Your task to perform on an android device: View the shopping cart on amazon. Add usb-c to usb-a to the cart on amazon, then select checkout. Image 0: 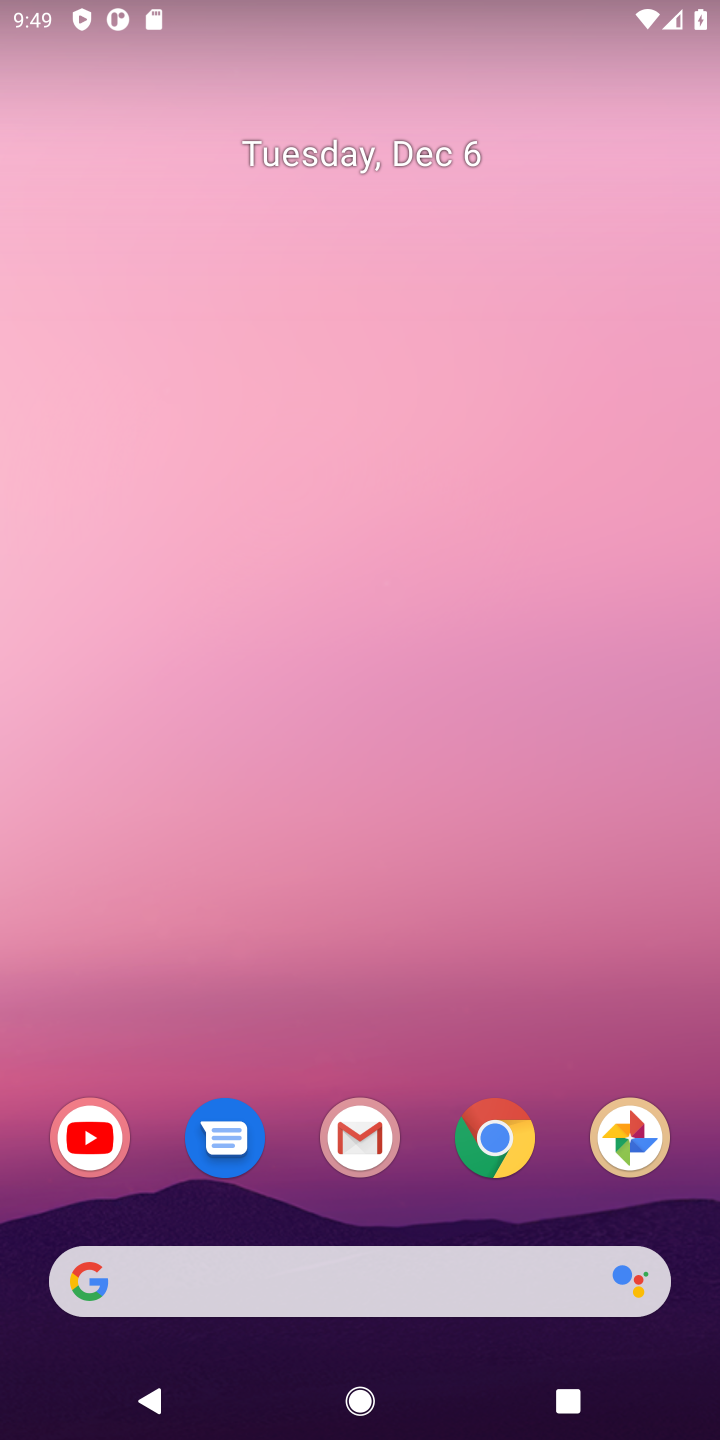
Step 0: click (506, 1134)
Your task to perform on an android device: View the shopping cart on amazon. Add usb-c to usb-a to the cart on amazon, then select checkout. Image 1: 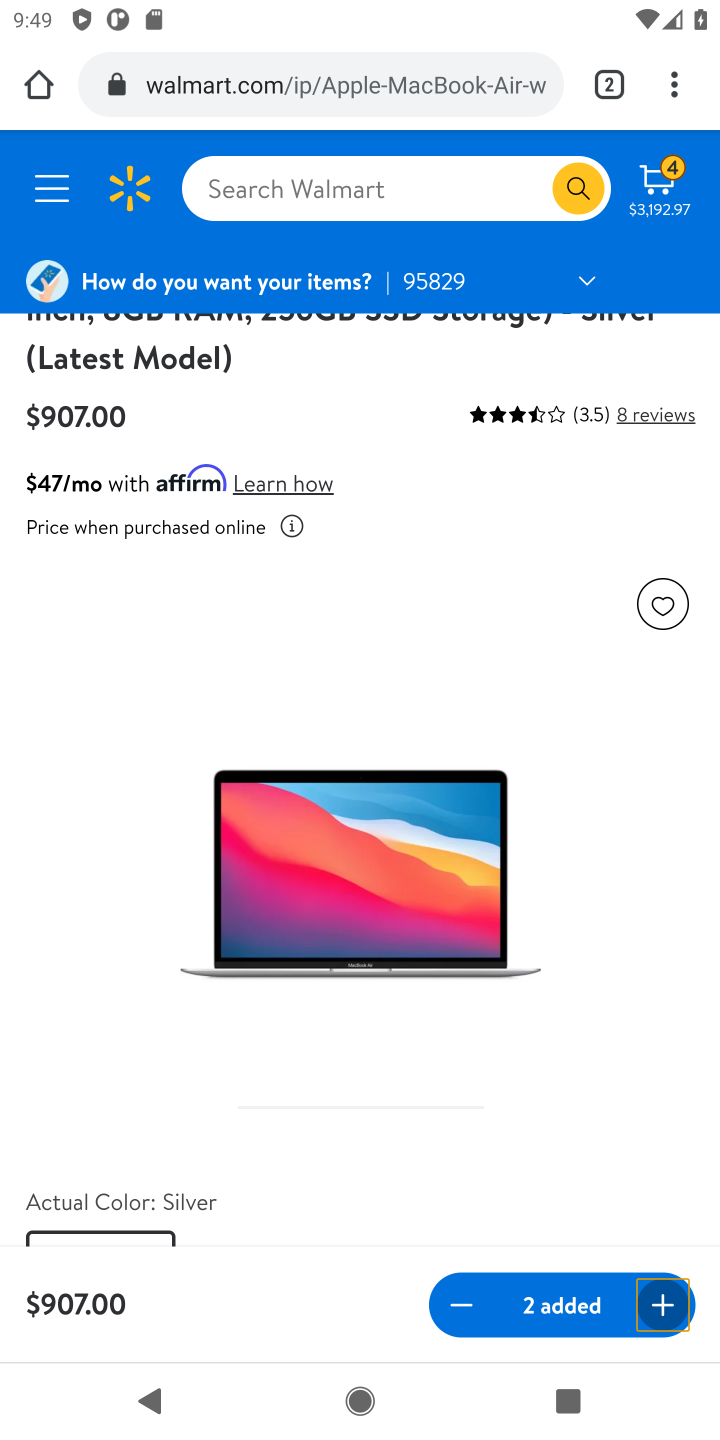
Step 1: click (293, 95)
Your task to perform on an android device: View the shopping cart on amazon. Add usb-c to usb-a to the cart on amazon, then select checkout. Image 2: 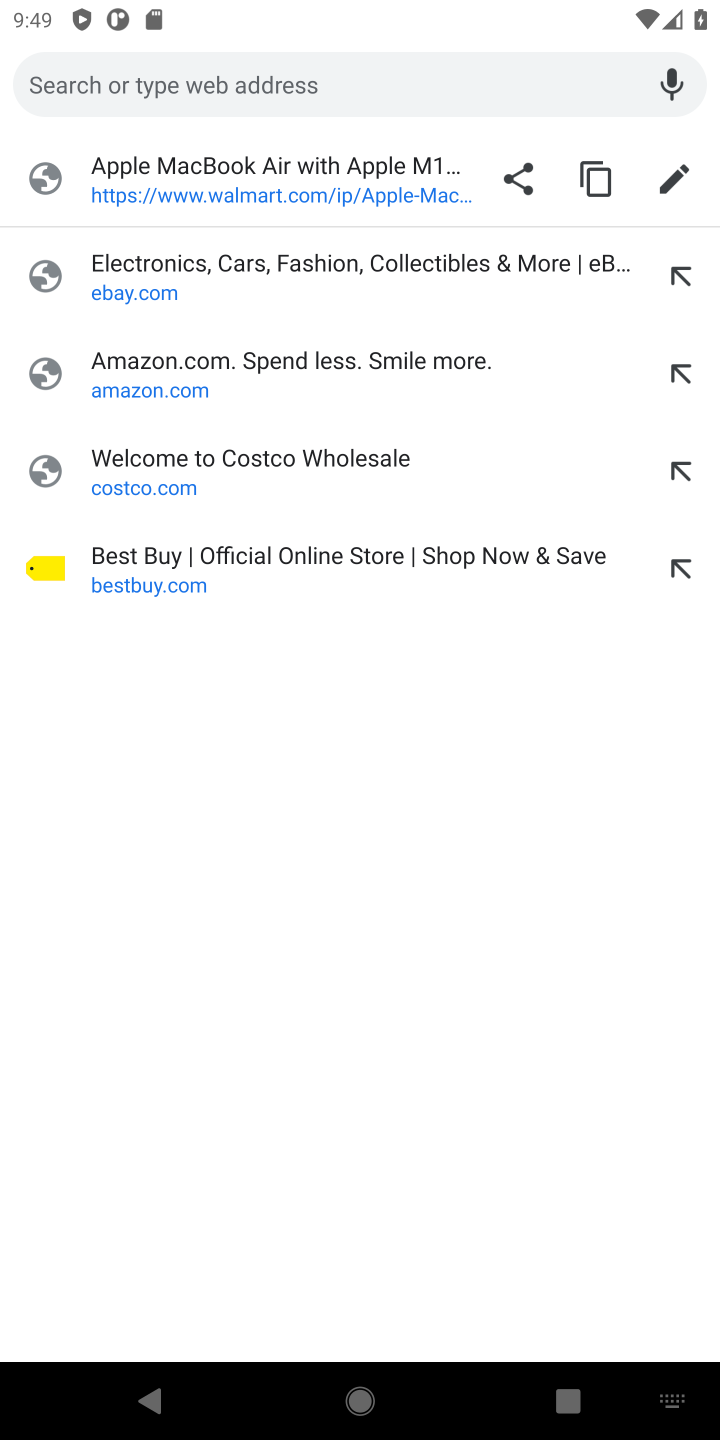
Step 2: click (129, 377)
Your task to perform on an android device: View the shopping cart on amazon. Add usb-c to usb-a to the cart on amazon, then select checkout. Image 3: 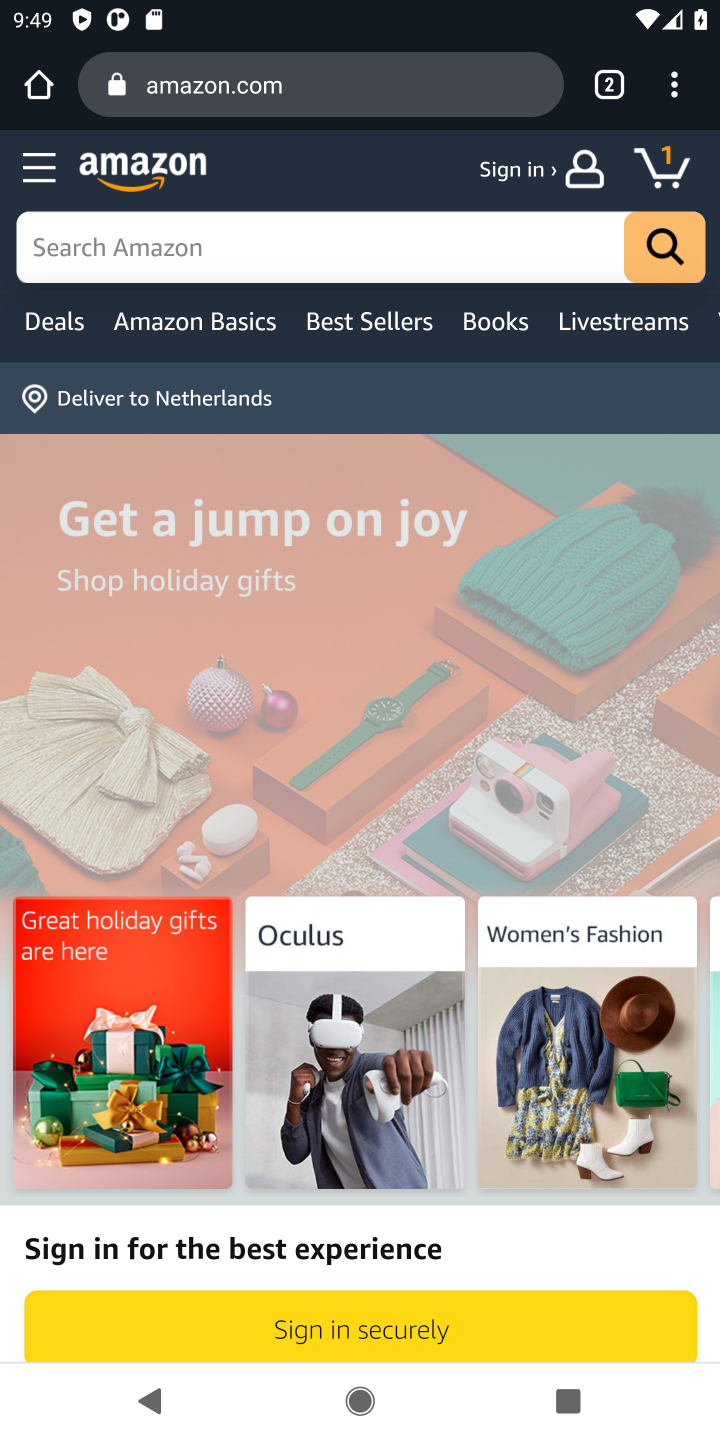
Step 3: click (668, 168)
Your task to perform on an android device: View the shopping cart on amazon. Add usb-c to usb-a to the cart on amazon, then select checkout. Image 4: 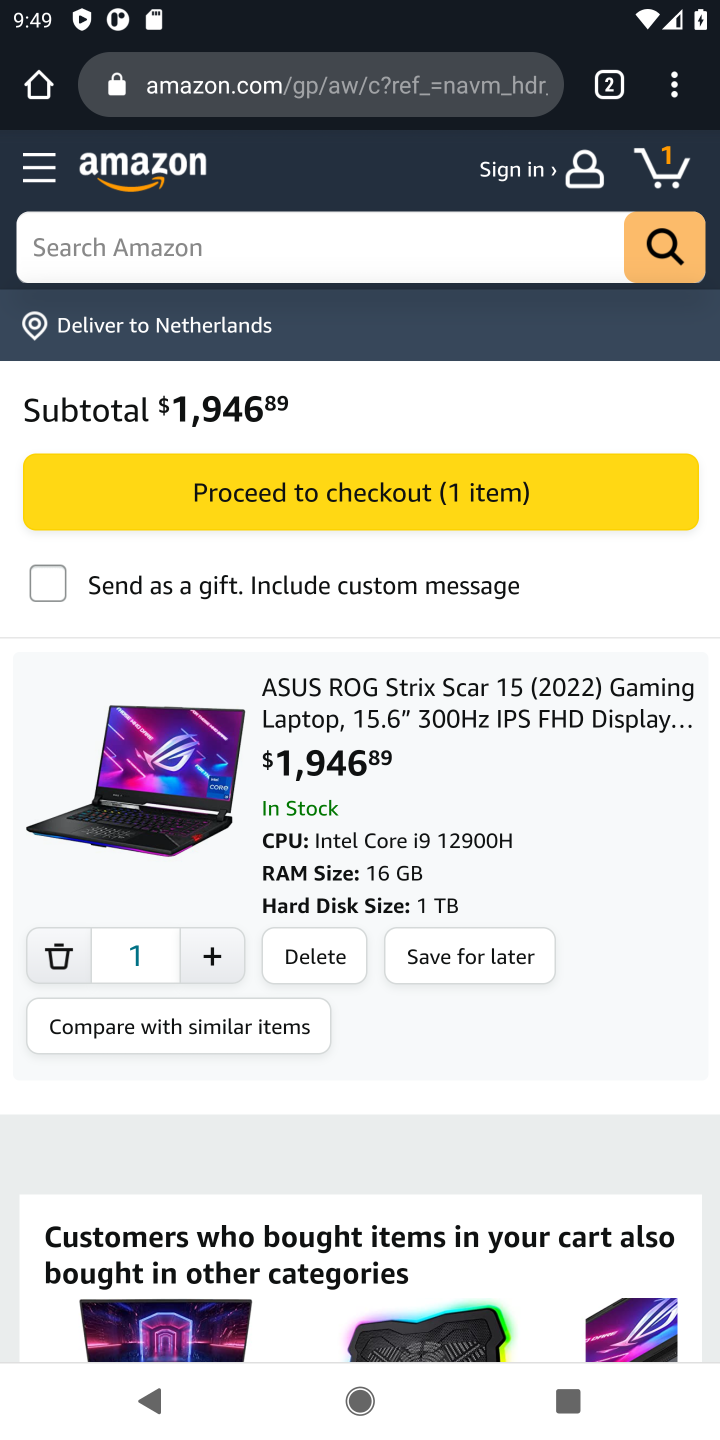
Step 4: click (82, 237)
Your task to perform on an android device: View the shopping cart on amazon. Add usb-c to usb-a to the cart on amazon, then select checkout. Image 5: 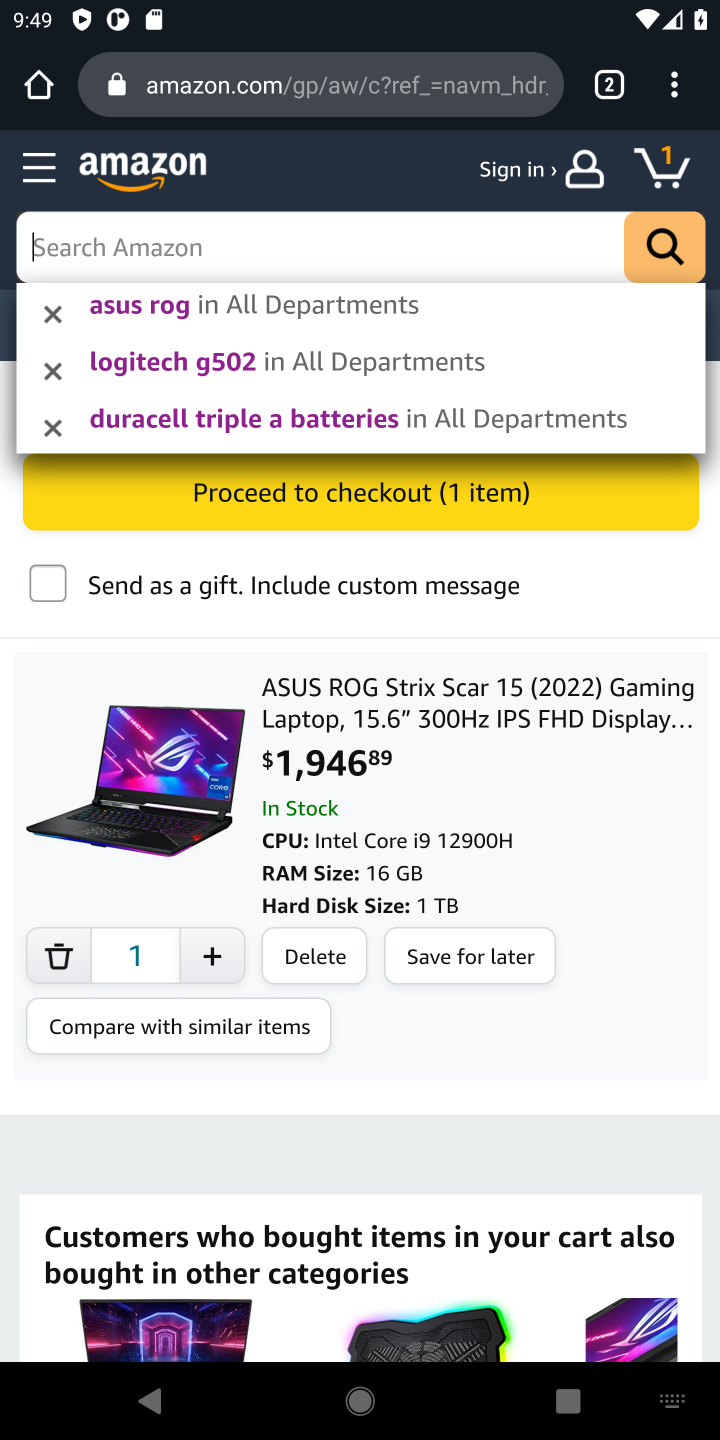
Step 5: type " usb-c to usb-a"
Your task to perform on an android device: View the shopping cart on amazon. Add usb-c to usb-a to the cart on amazon, then select checkout. Image 6: 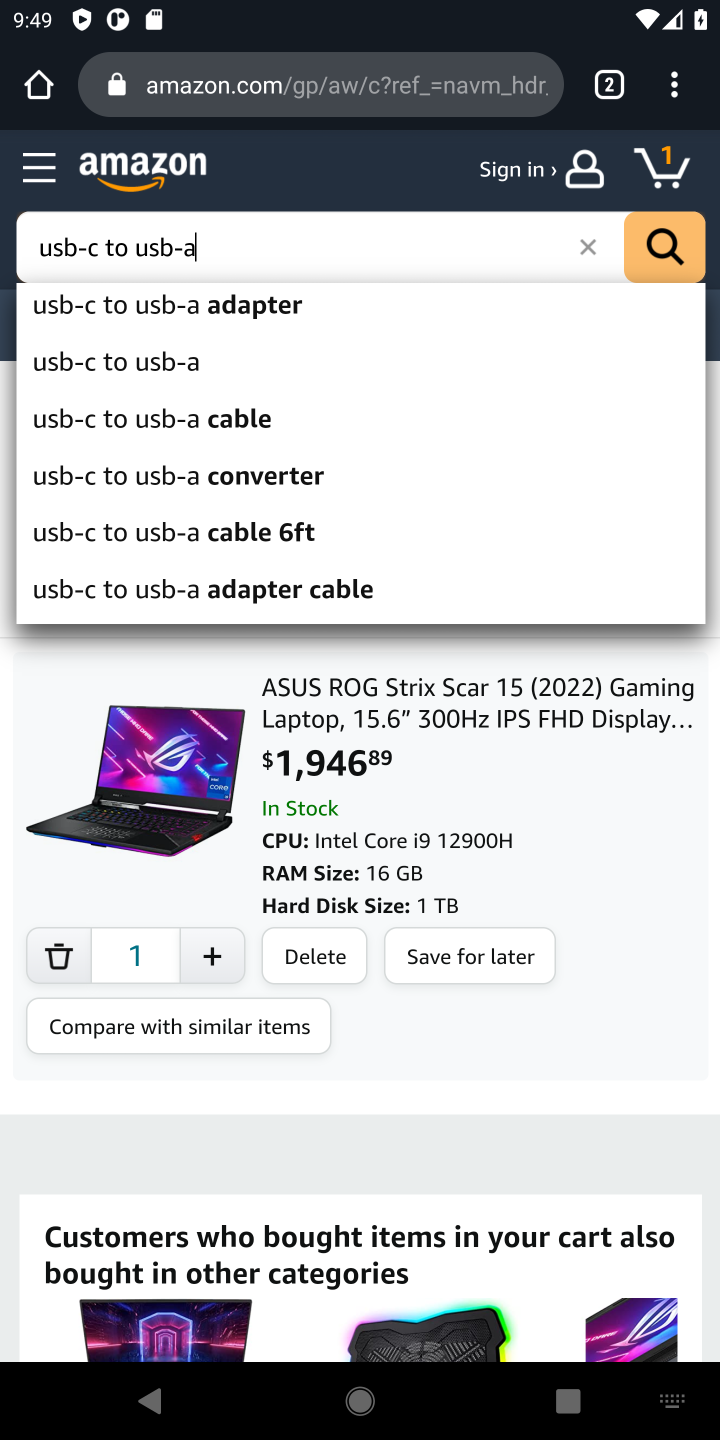
Step 6: click (145, 368)
Your task to perform on an android device: View the shopping cart on amazon. Add usb-c to usb-a to the cart on amazon, then select checkout. Image 7: 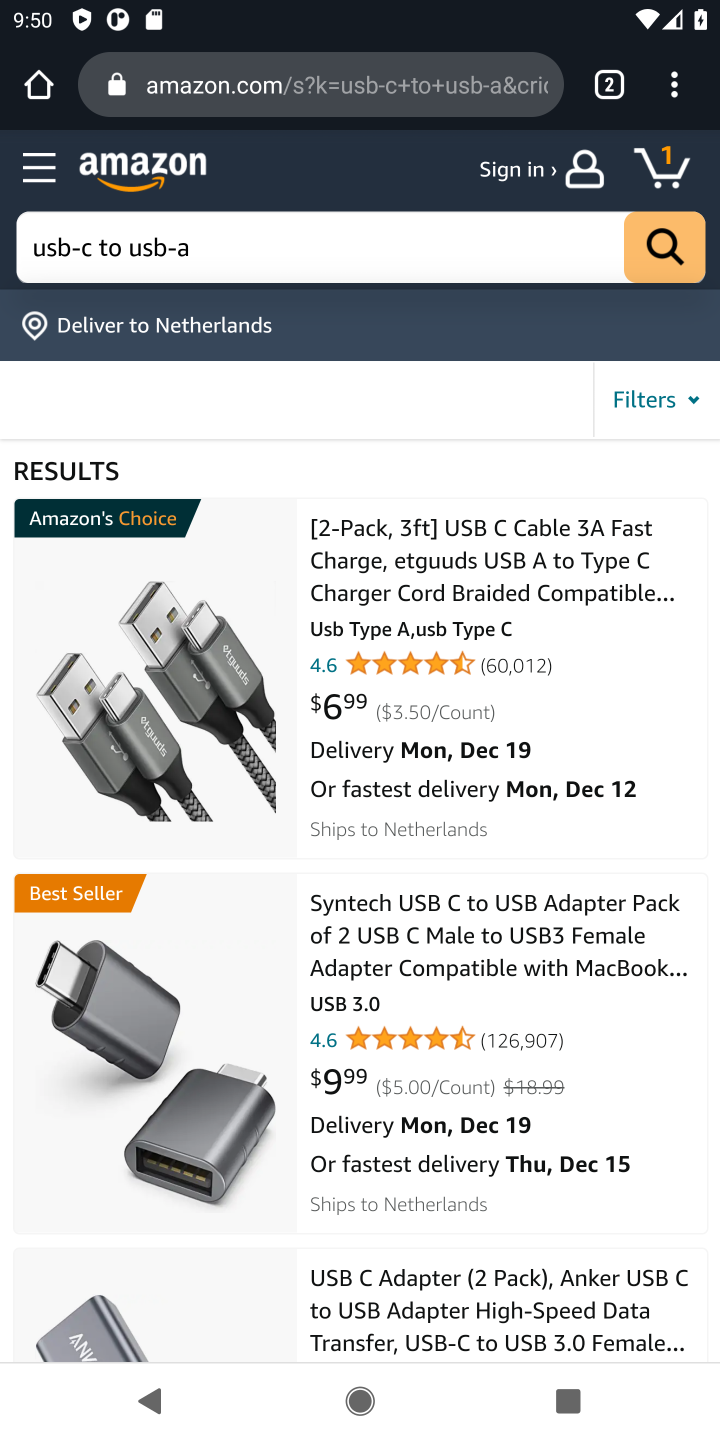
Step 7: drag from (455, 1096) to (423, 639)
Your task to perform on an android device: View the shopping cart on amazon. Add usb-c to usb-a to the cart on amazon, then select checkout. Image 8: 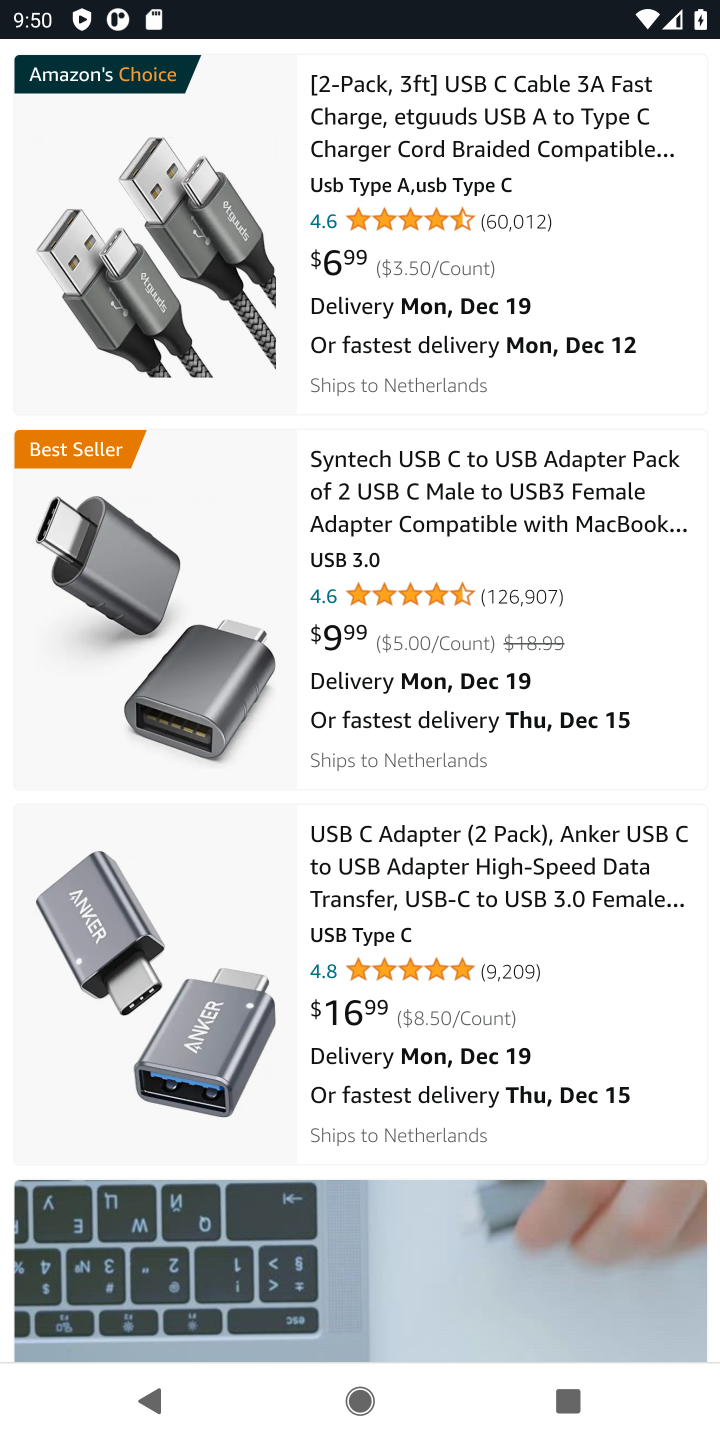
Step 8: drag from (373, 877) to (354, 422)
Your task to perform on an android device: View the shopping cart on amazon. Add usb-c to usb-a to the cart on amazon, then select checkout. Image 9: 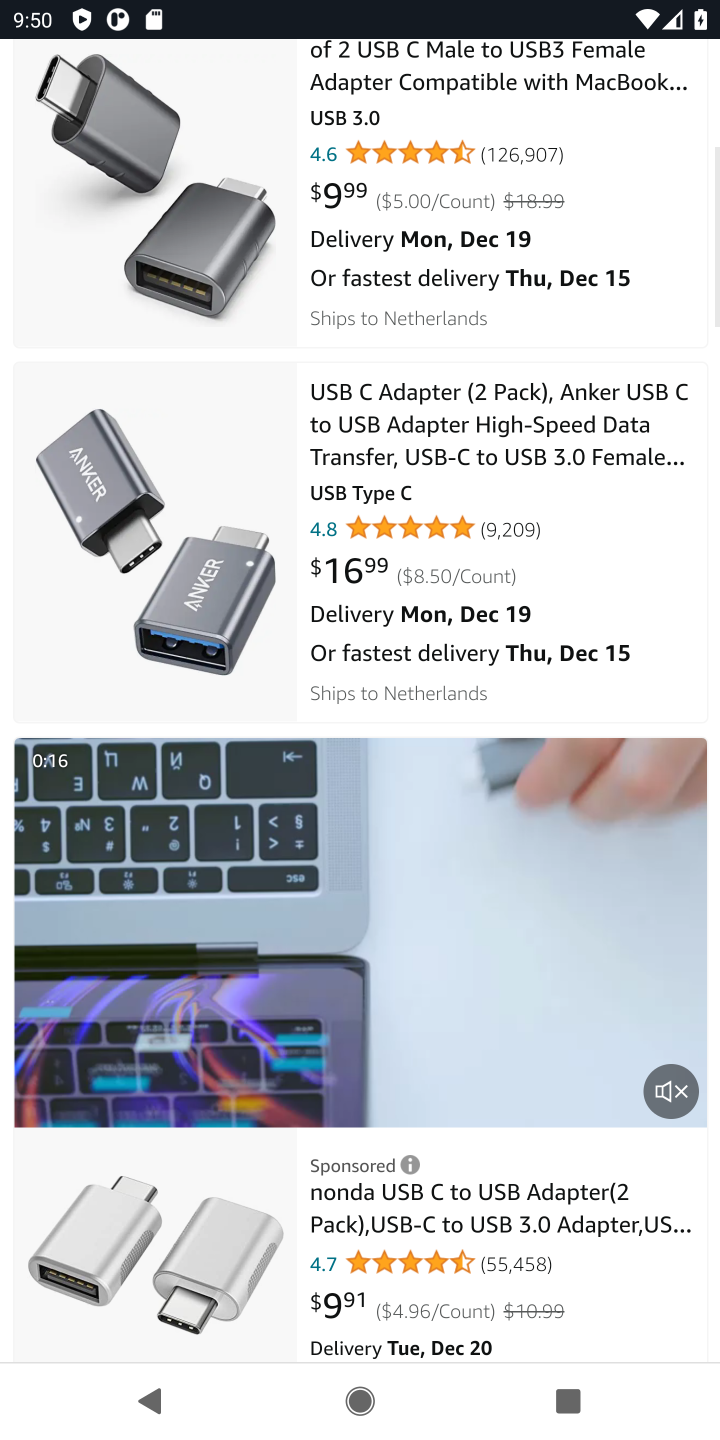
Step 9: drag from (323, 1030) to (339, 491)
Your task to perform on an android device: View the shopping cart on amazon. Add usb-c to usb-a to the cart on amazon, then select checkout. Image 10: 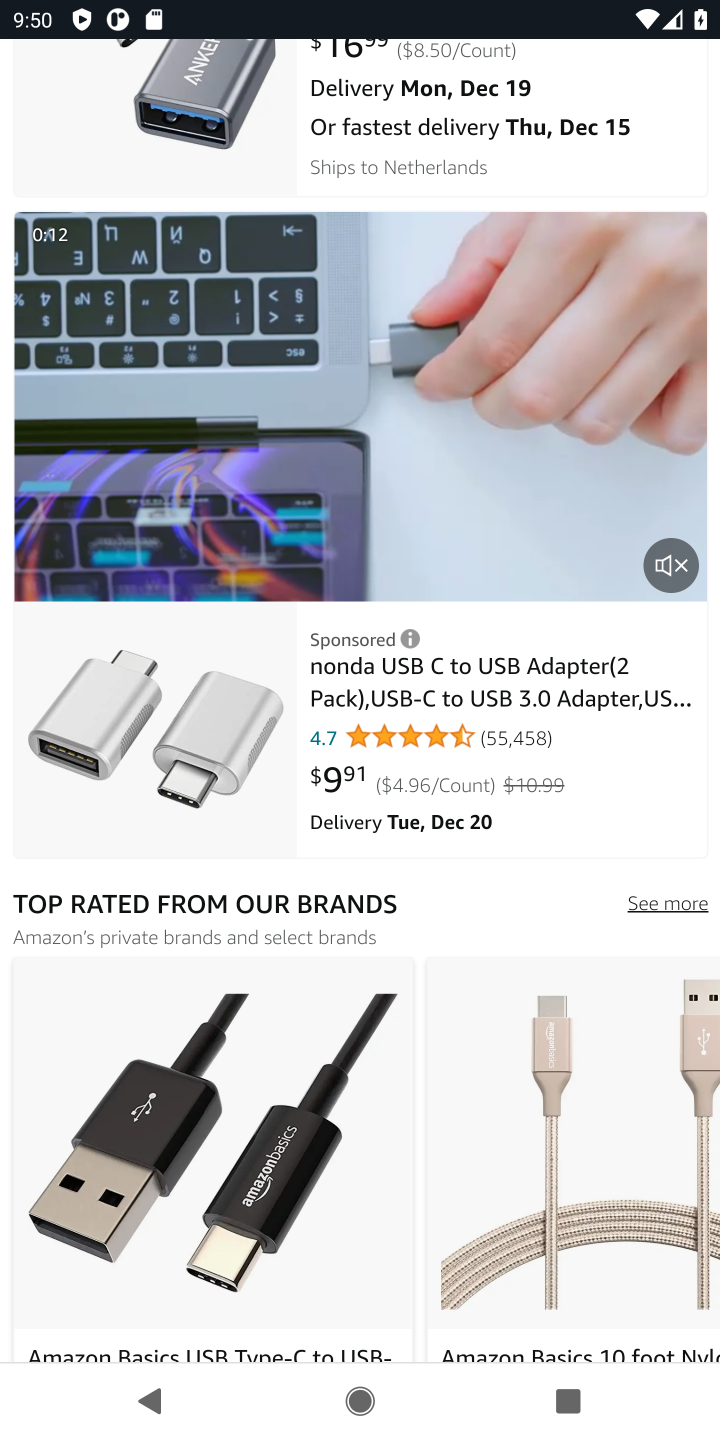
Step 10: drag from (397, 895) to (395, 402)
Your task to perform on an android device: View the shopping cart on amazon. Add usb-c to usb-a to the cart on amazon, then select checkout. Image 11: 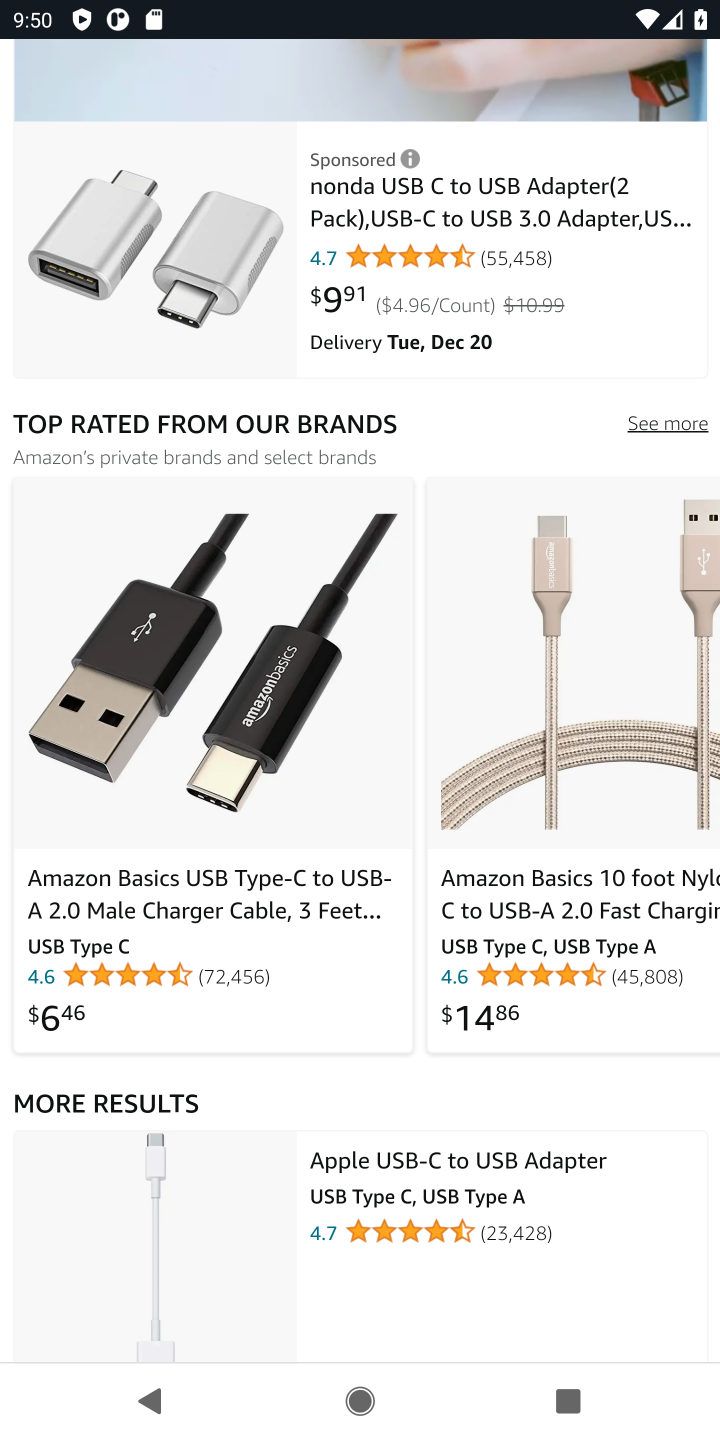
Step 11: drag from (336, 1065) to (332, 410)
Your task to perform on an android device: View the shopping cart on amazon. Add usb-c to usb-a to the cart on amazon, then select checkout. Image 12: 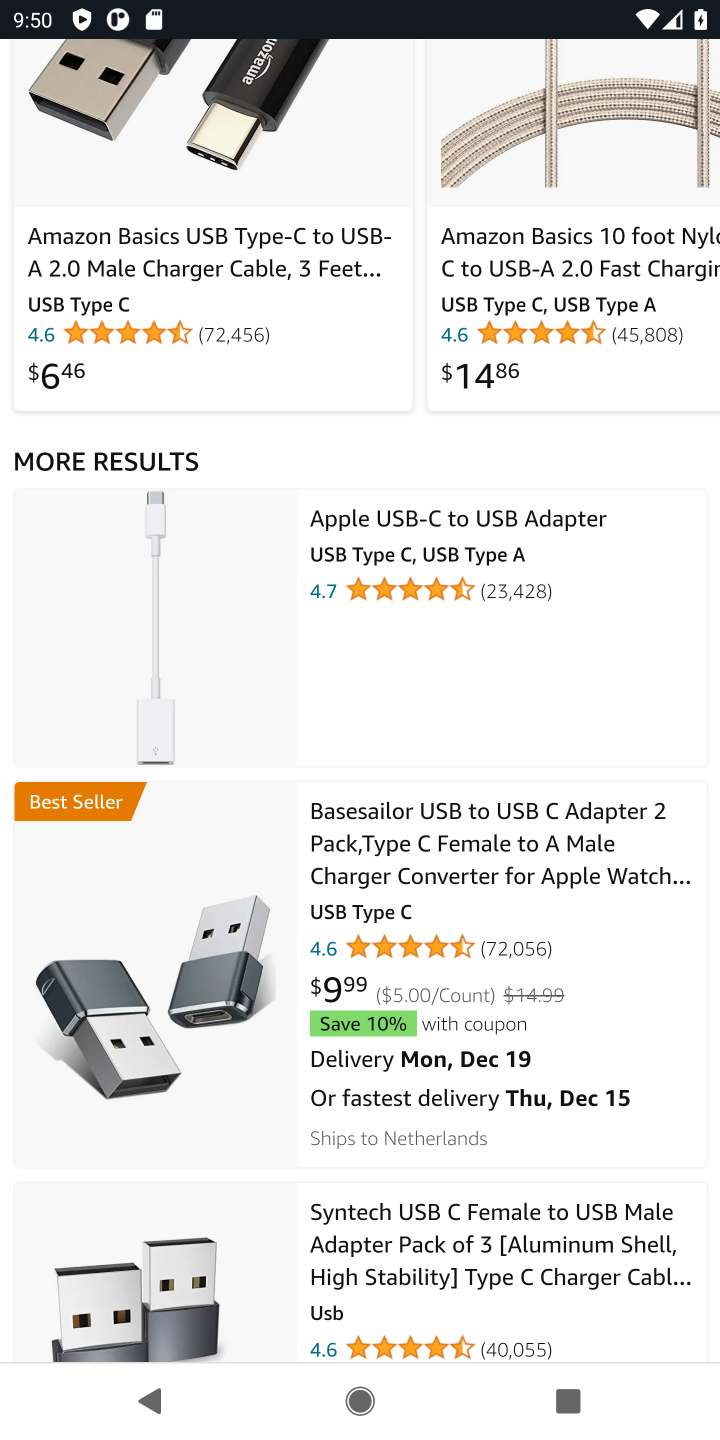
Step 12: drag from (327, 511) to (316, 772)
Your task to perform on an android device: View the shopping cart on amazon. Add usb-c to usb-a to the cart on amazon, then select checkout. Image 13: 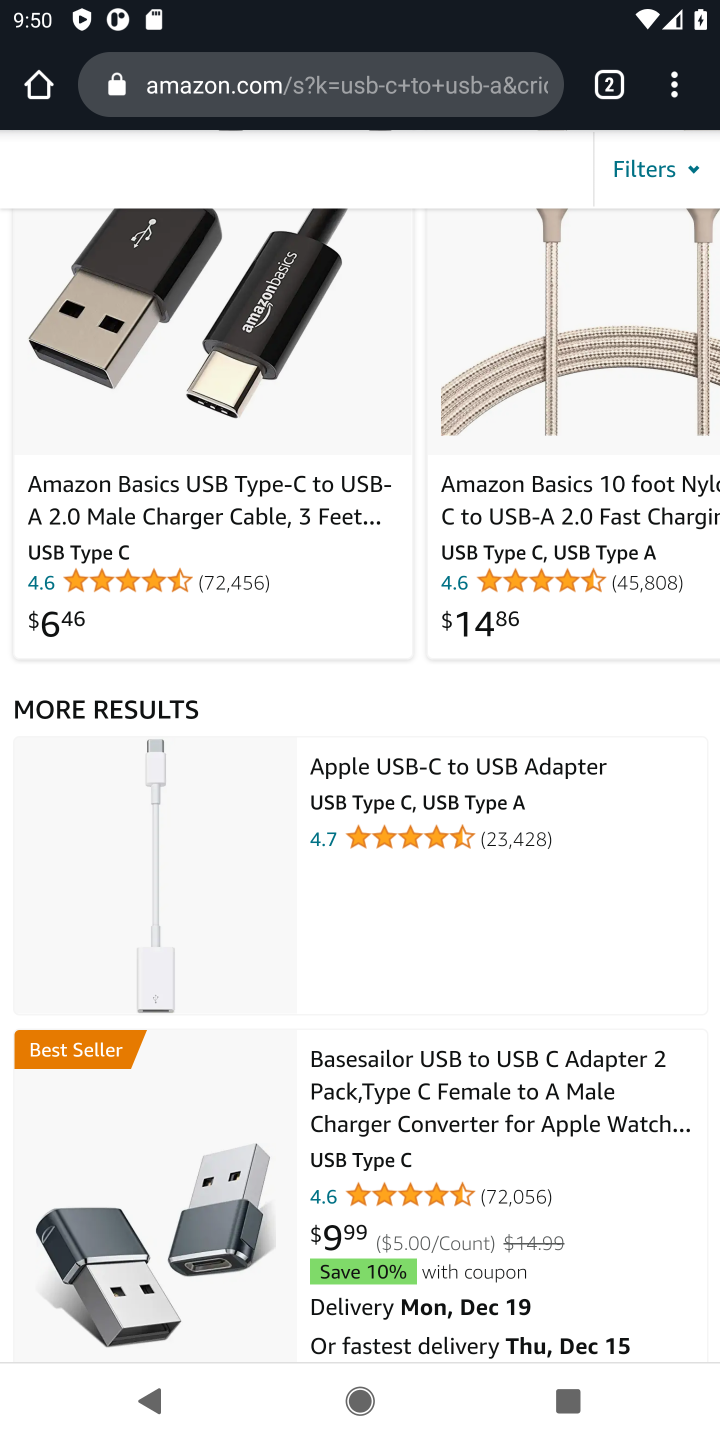
Step 13: click (174, 400)
Your task to perform on an android device: View the shopping cart on amazon. Add usb-c to usb-a to the cart on amazon, then select checkout. Image 14: 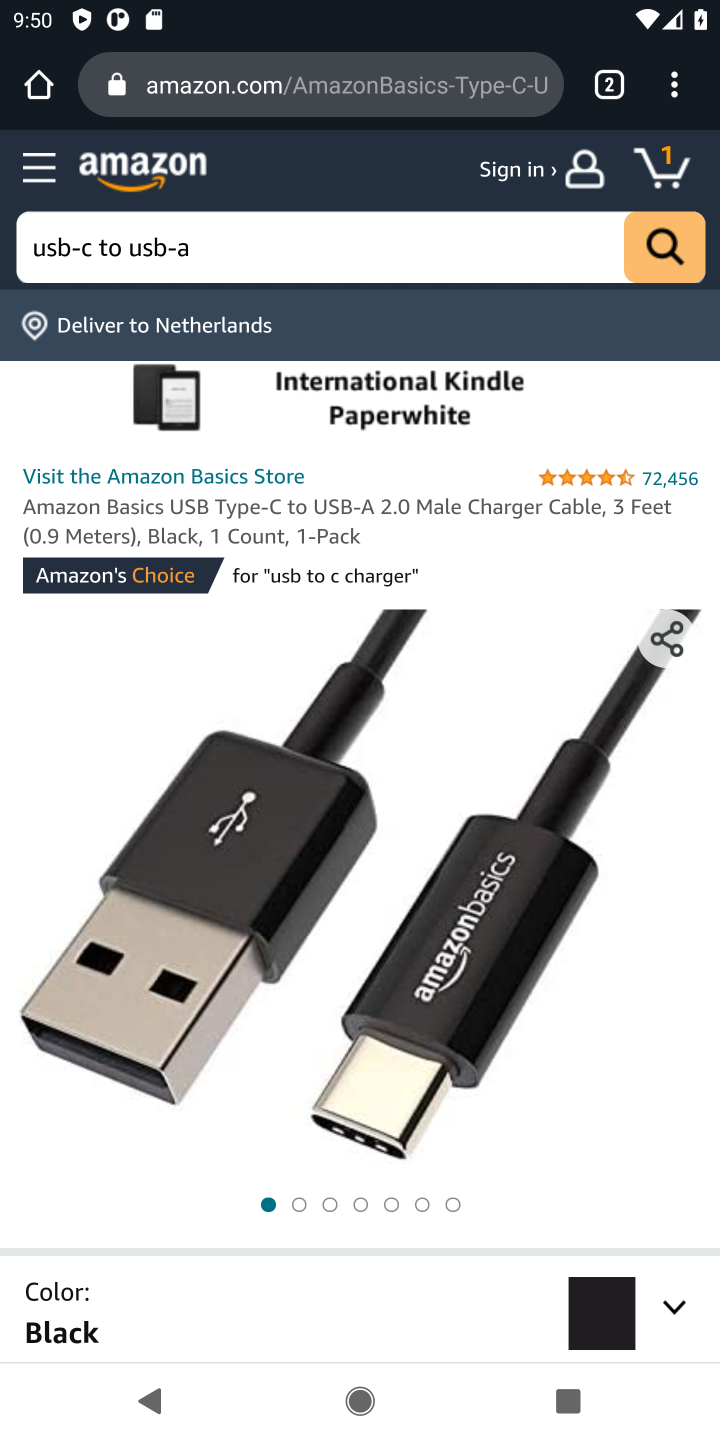
Step 14: drag from (328, 986) to (289, 495)
Your task to perform on an android device: View the shopping cart on amazon. Add usb-c to usb-a to the cart on amazon, then select checkout. Image 15: 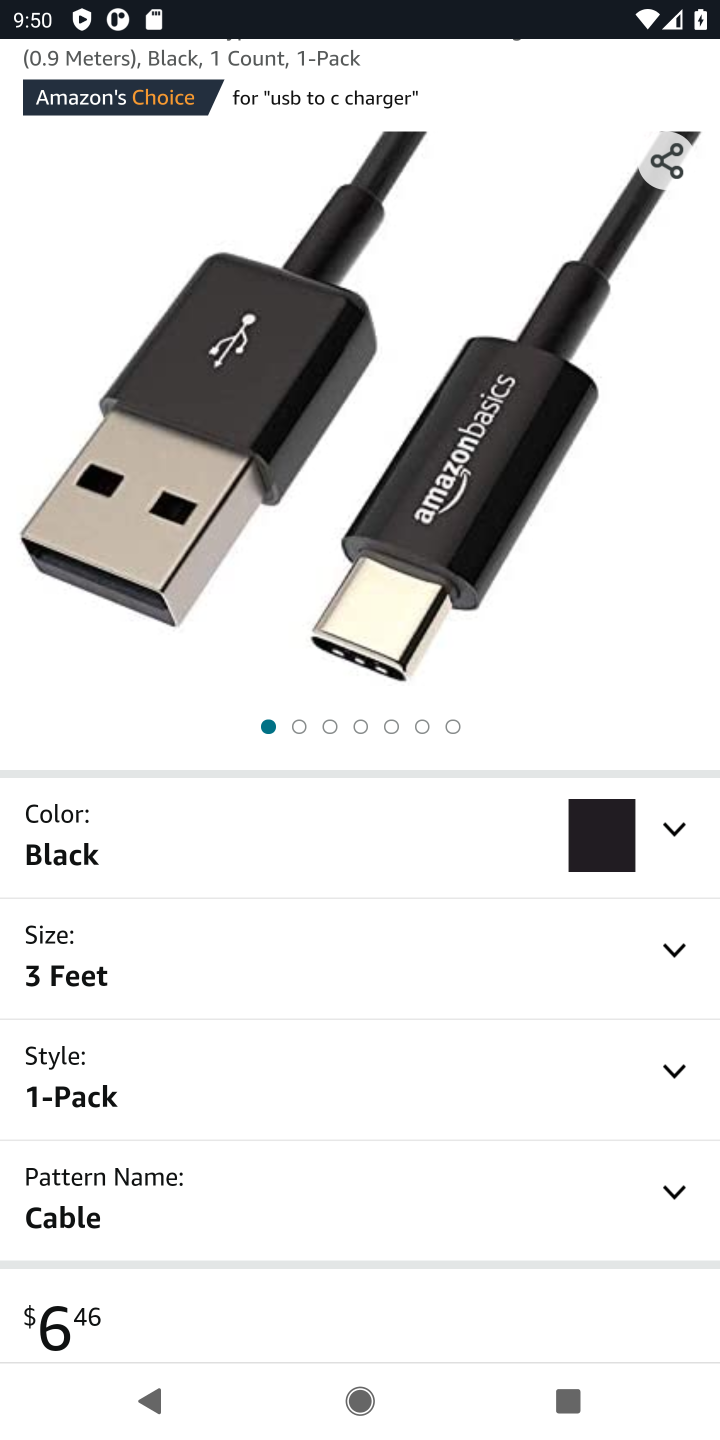
Step 15: drag from (336, 893) to (332, 413)
Your task to perform on an android device: View the shopping cart on amazon. Add usb-c to usb-a to the cart on amazon, then select checkout. Image 16: 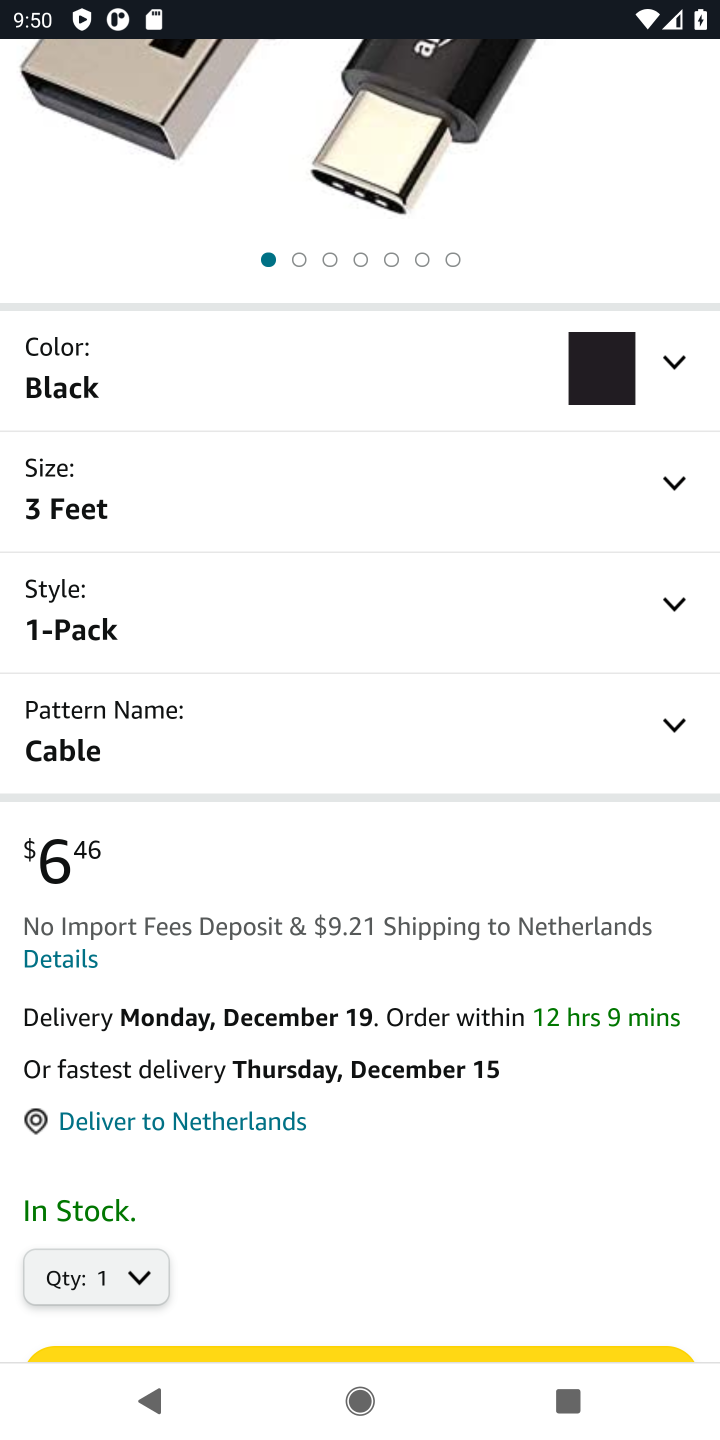
Step 16: drag from (381, 1146) to (331, 715)
Your task to perform on an android device: View the shopping cart on amazon. Add usb-c to usb-a to the cart on amazon, then select checkout. Image 17: 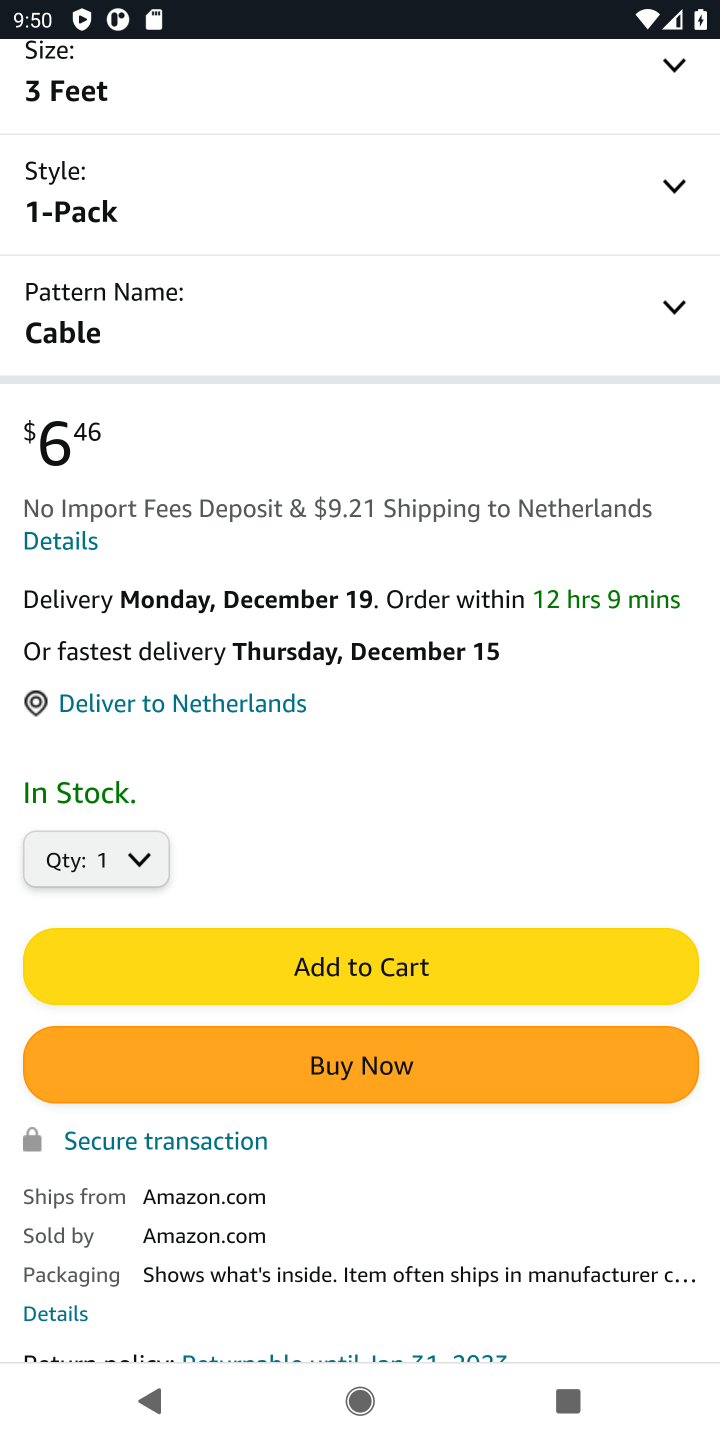
Step 17: click (330, 966)
Your task to perform on an android device: View the shopping cart on amazon. Add usb-c to usb-a to the cart on amazon, then select checkout. Image 18: 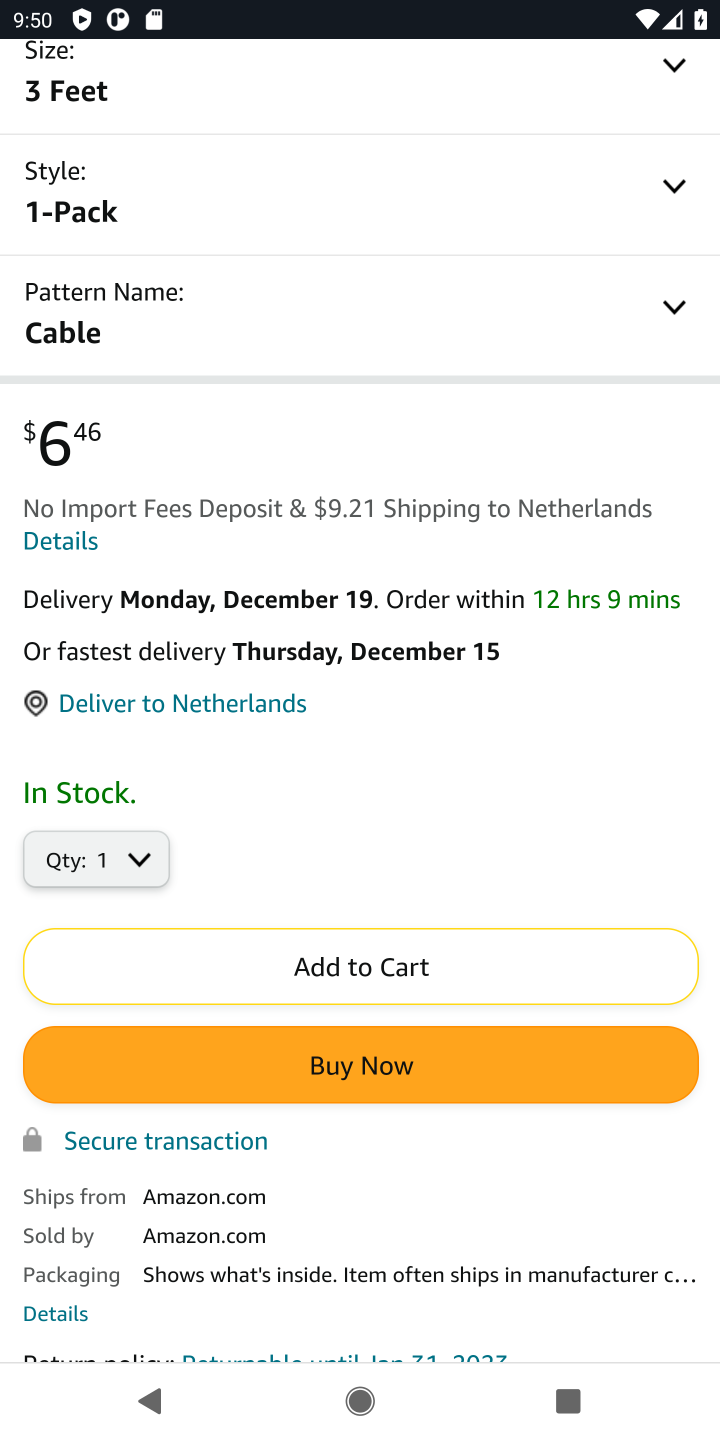
Step 18: click (330, 967)
Your task to perform on an android device: View the shopping cart on amazon. Add usb-c to usb-a to the cart on amazon, then select checkout. Image 19: 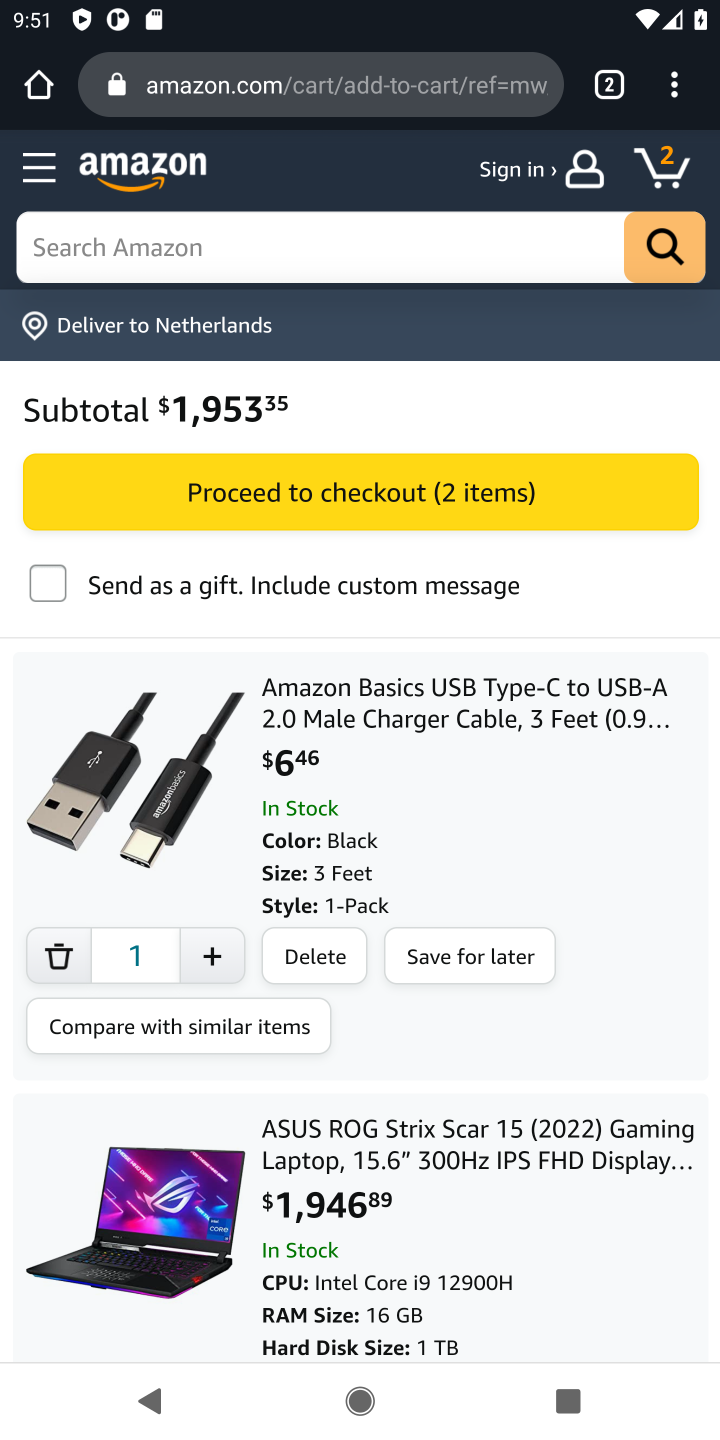
Step 19: click (358, 498)
Your task to perform on an android device: View the shopping cart on amazon. Add usb-c to usb-a to the cart on amazon, then select checkout. Image 20: 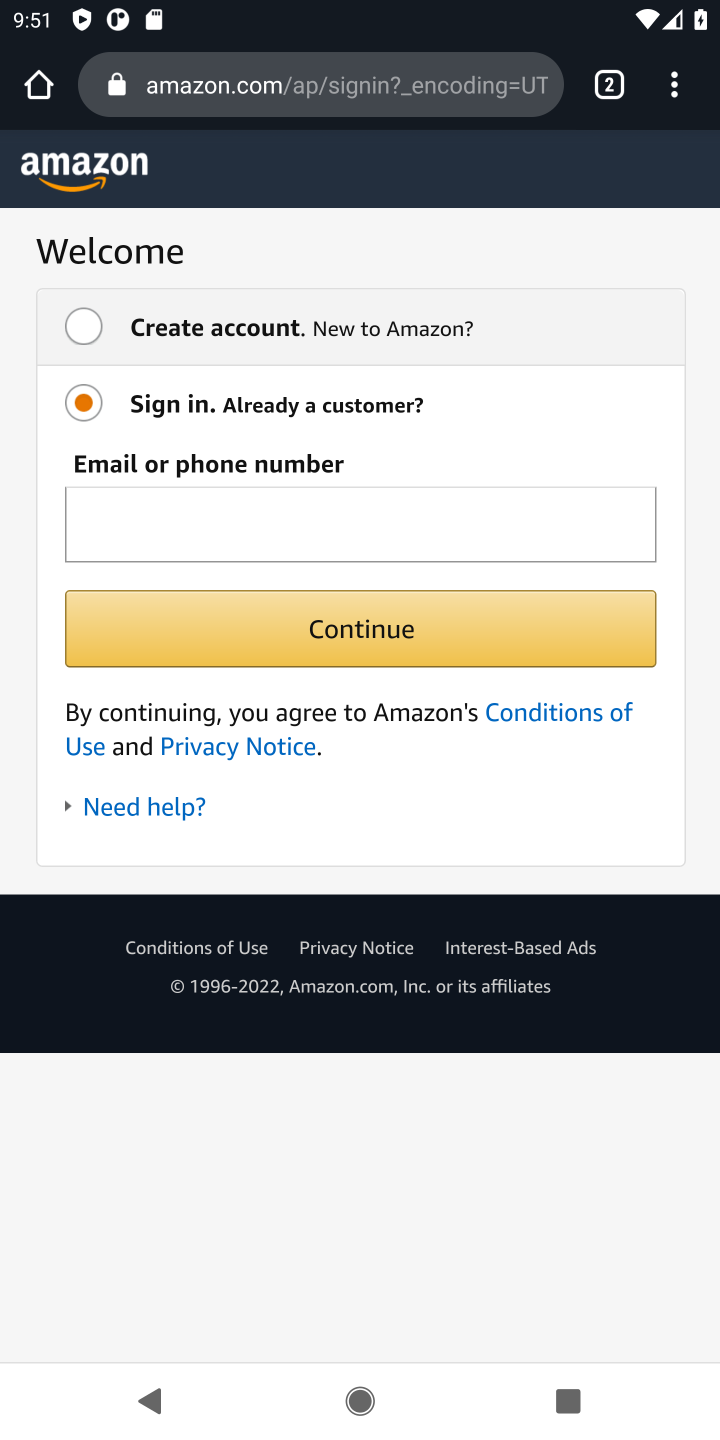
Step 20: task complete